Your task to perform on an android device: turn on wifi Image 0: 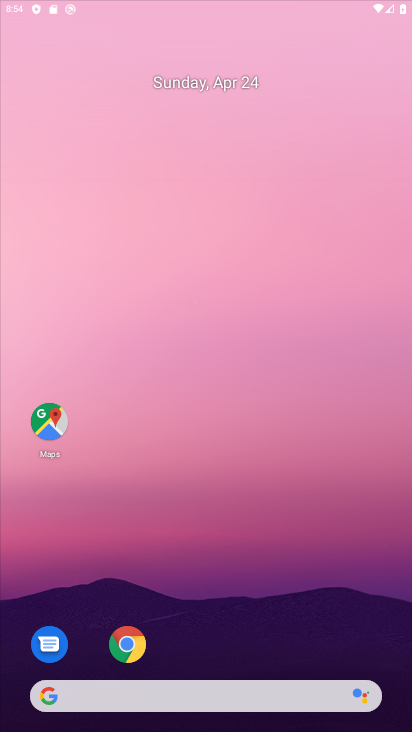
Step 0: drag from (198, 579) to (175, 39)
Your task to perform on an android device: turn on wifi Image 1: 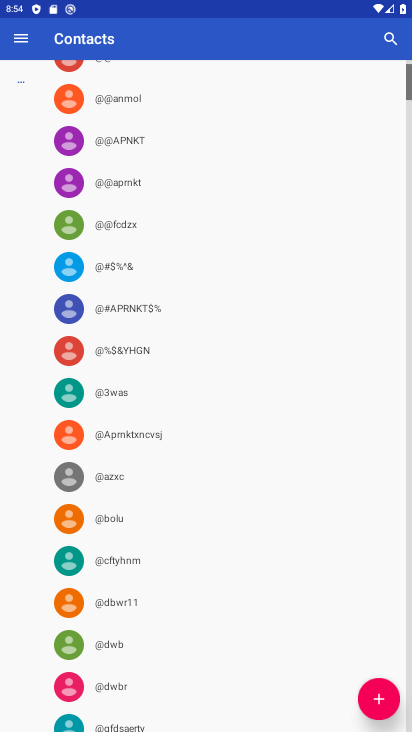
Step 1: press home button
Your task to perform on an android device: turn on wifi Image 2: 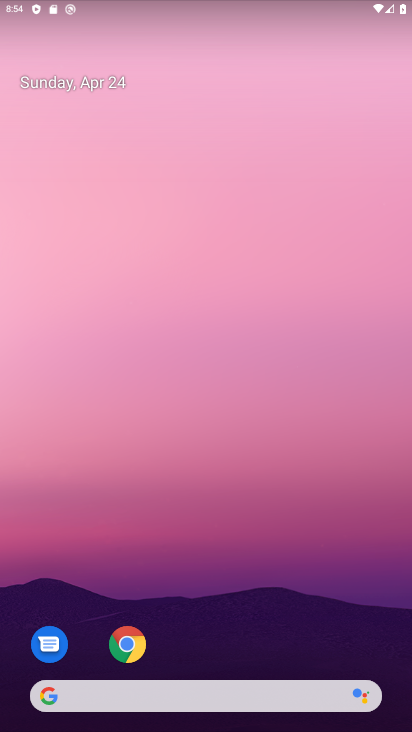
Step 2: drag from (199, 676) to (210, 16)
Your task to perform on an android device: turn on wifi Image 3: 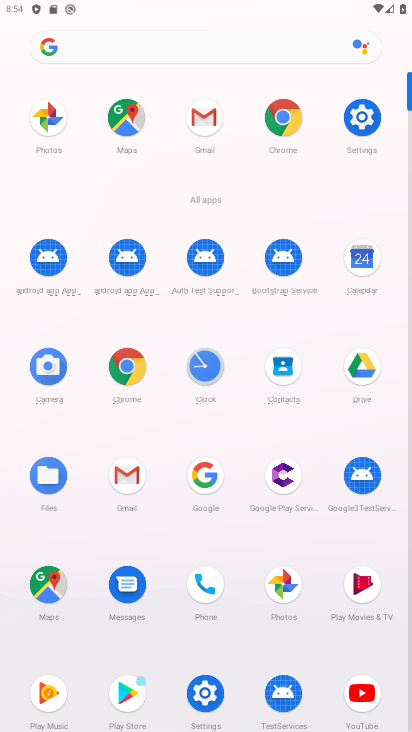
Step 3: click (354, 111)
Your task to perform on an android device: turn on wifi Image 4: 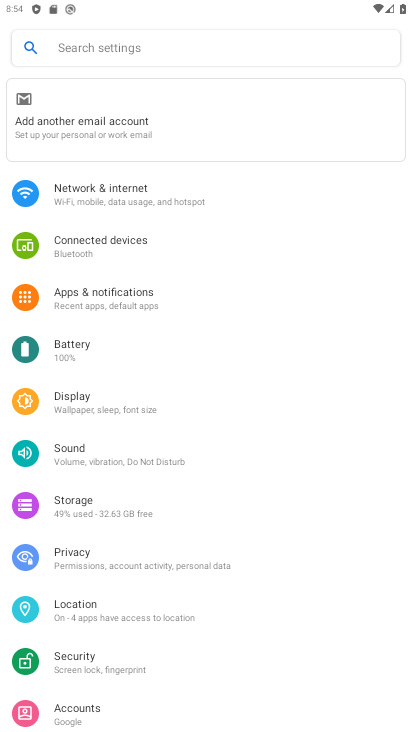
Step 4: click (98, 188)
Your task to perform on an android device: turn on wifi Image 5: 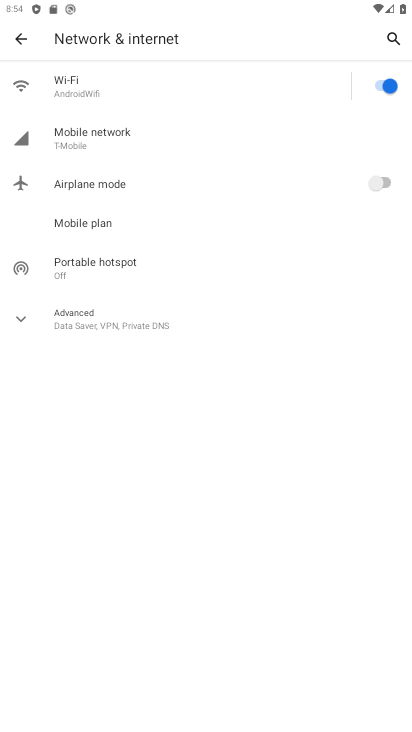
Step 5: click (127, 74)
Your task to perform on an android device: turn on wifi Image 6: 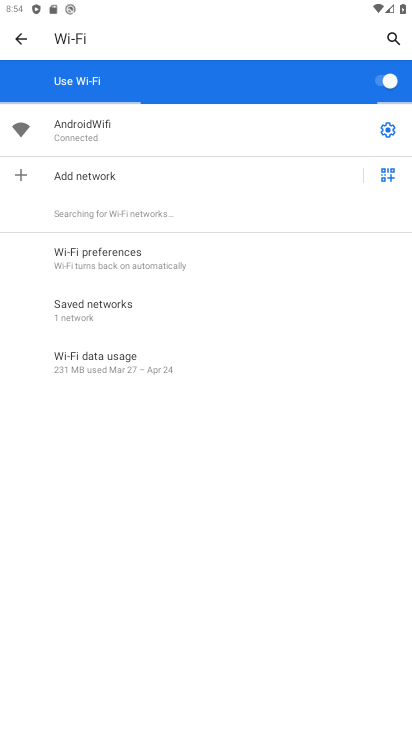
Step 6: task complete